Your task to perform on an android device: empty trash in the gmail app Image 0: 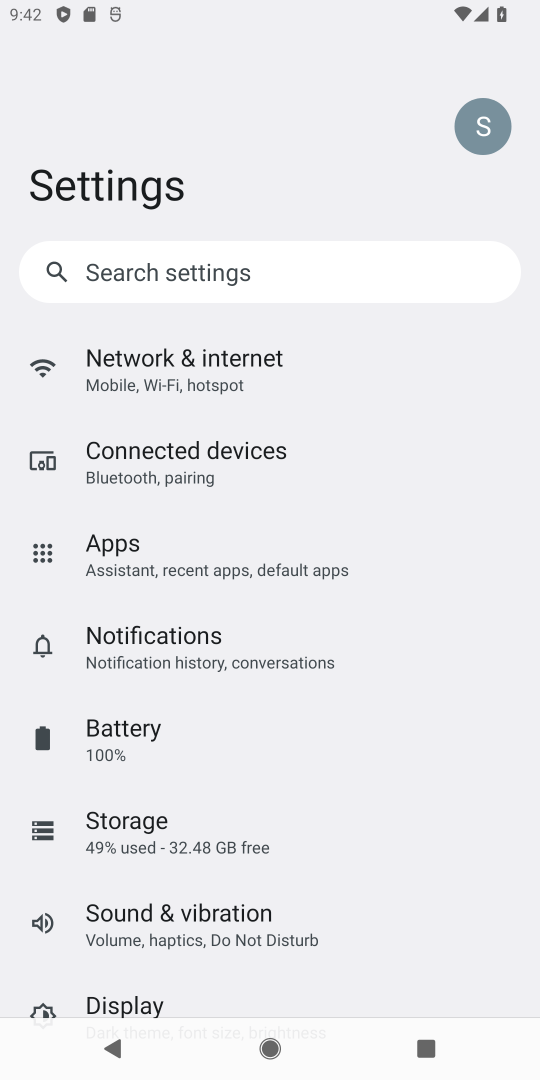
Step 0: press home button
Your task to perform on an android device: empty trash in the gmail app Image 1: 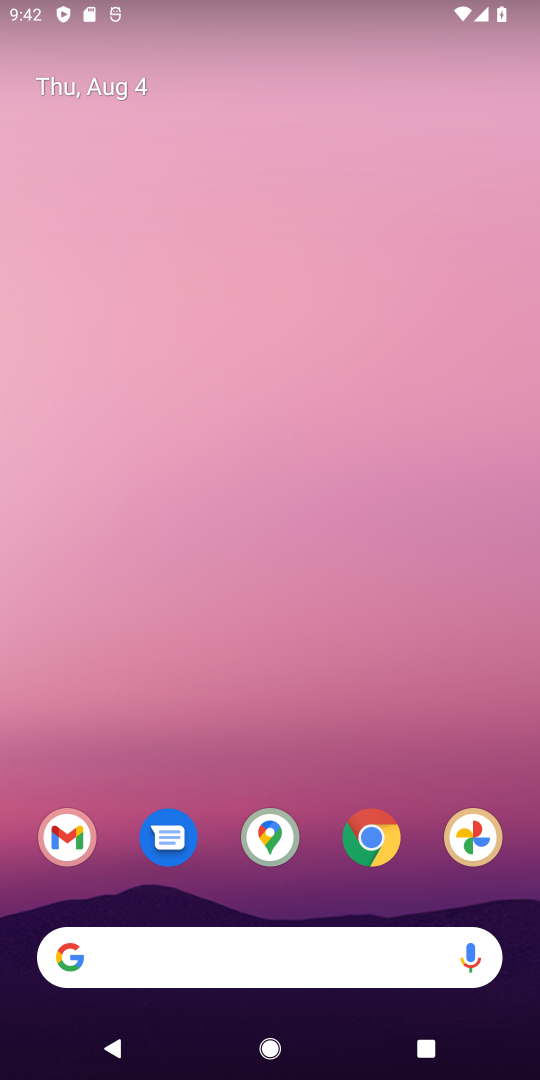
Step 1: drag from (366, 718) to (260, 3)
Your task to perform on an android device: empty trash in the gmail app Image 2: 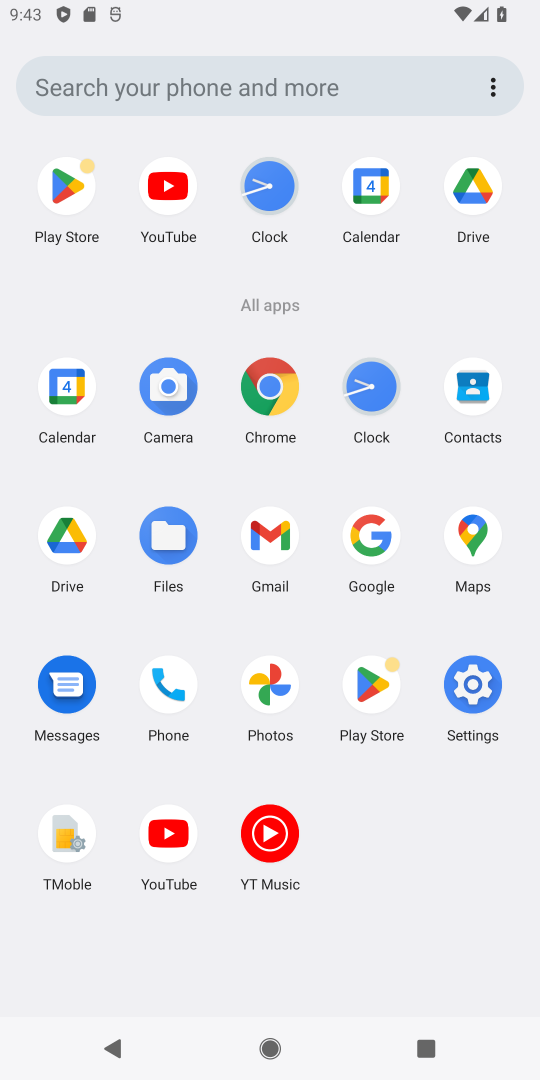
Step 2: click (265, 522)
Your task to perform on an android device: empty trash in the gmail app Image 3: 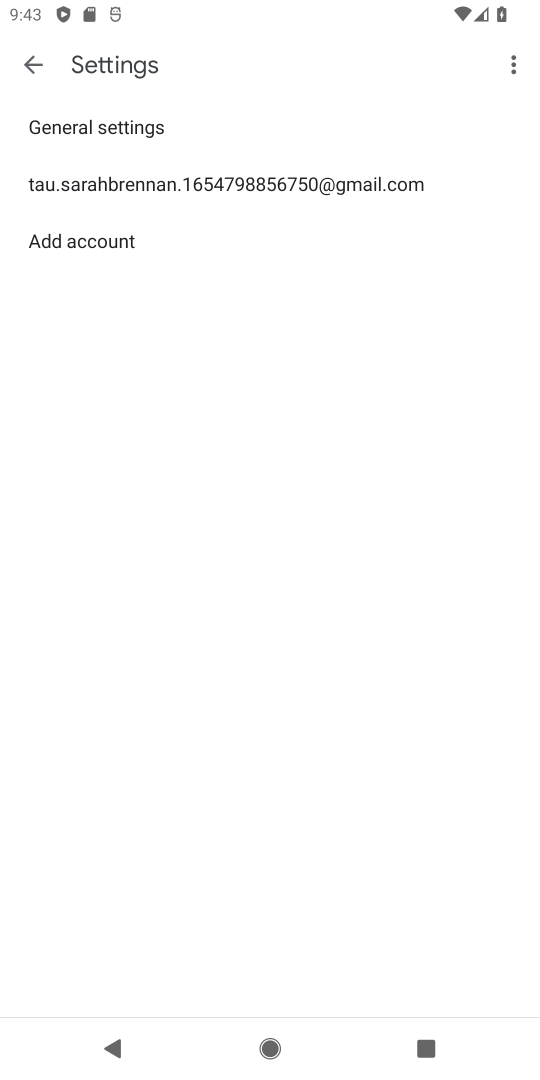
Step 3: click (293, 195)
Your task to perform on an android device: empty trash in the gmail app Image 4: 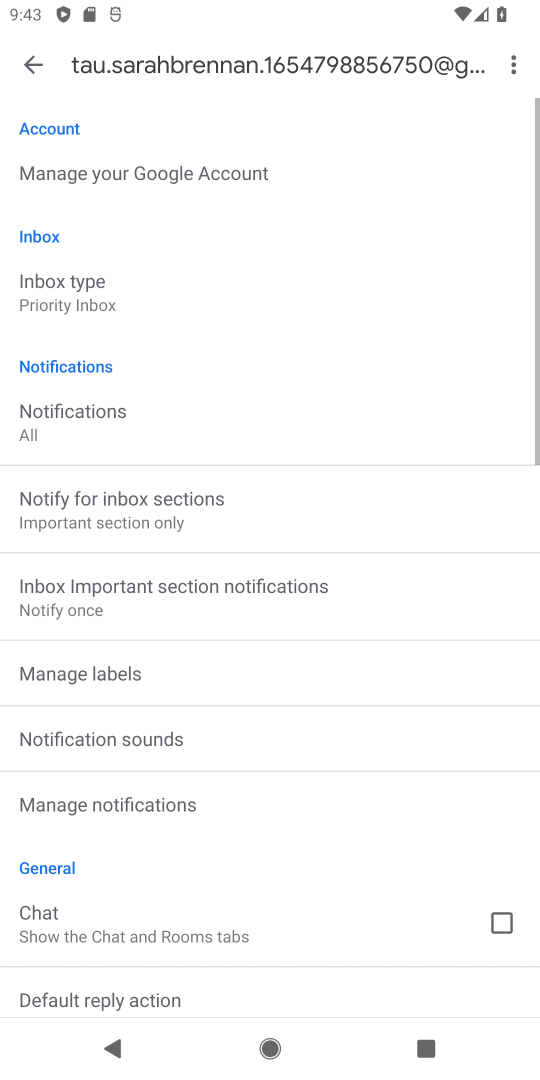
Step 4: press back button
Your task to perform on an android device: empty trash in the gmail app Image 5: 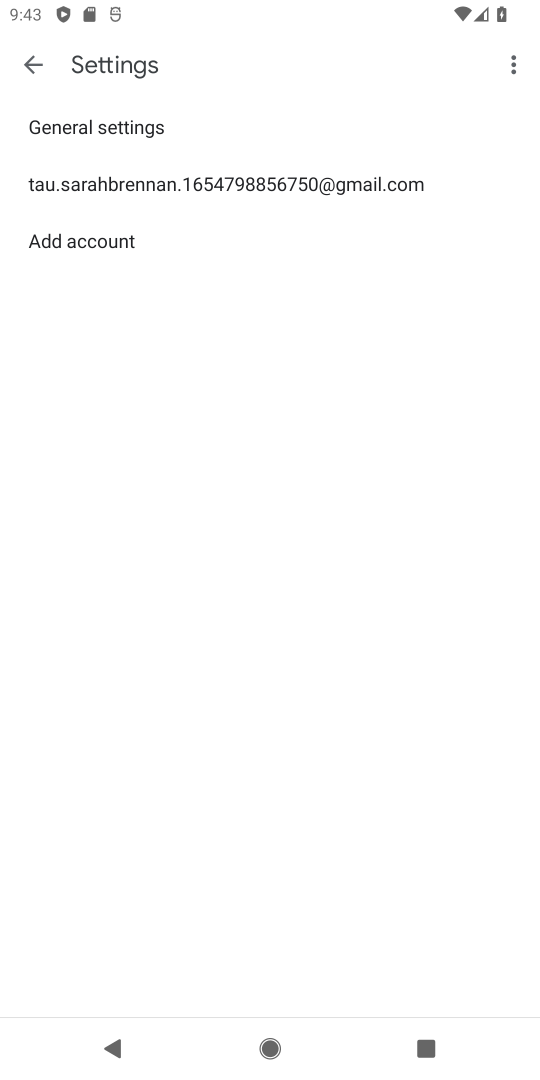
Step 5: press back button
Your task to perform on an android device: empty trash in the gmail app Image 6: 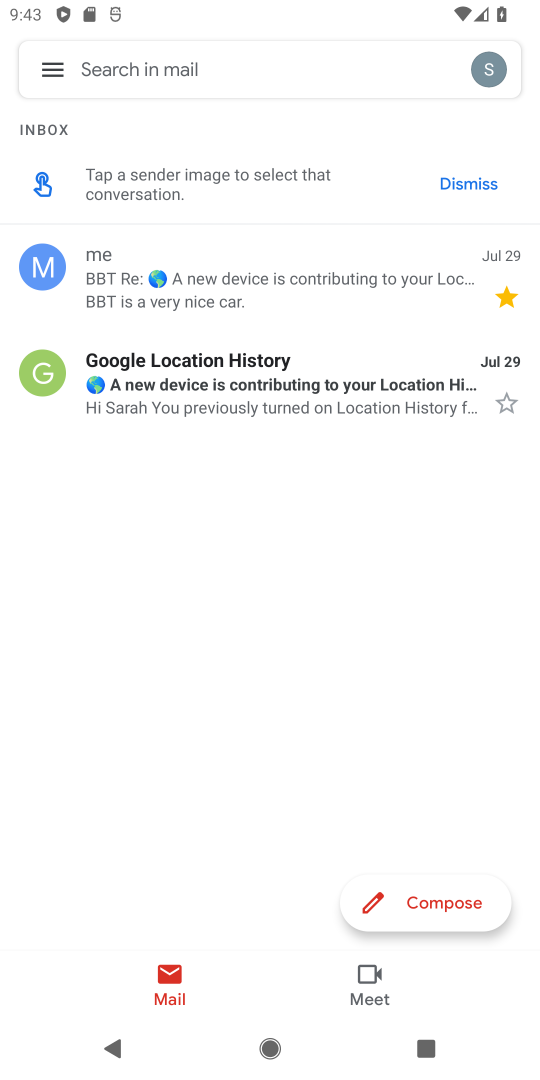
Step 6: click (37, 64)
Your task to perform on an android device: empty trash in the gmail app Image 7: 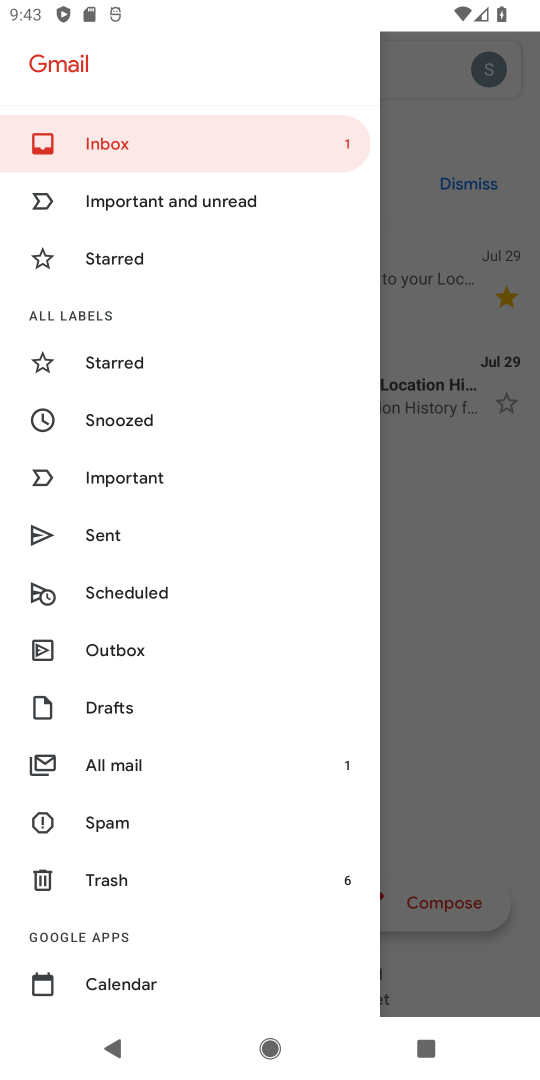
Step 7: click (97, 883)
Your task to perform on an android device: empty trash in the gmail app Image 8: 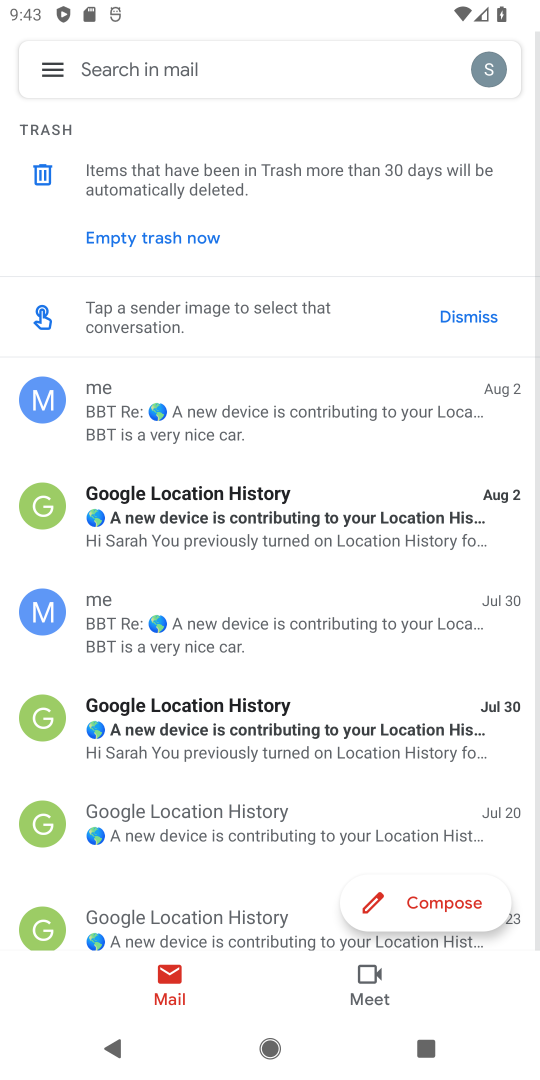
Step 8: click (164, 238)
Your task to perform on an android device: empty trash in the gmail app Image 9: 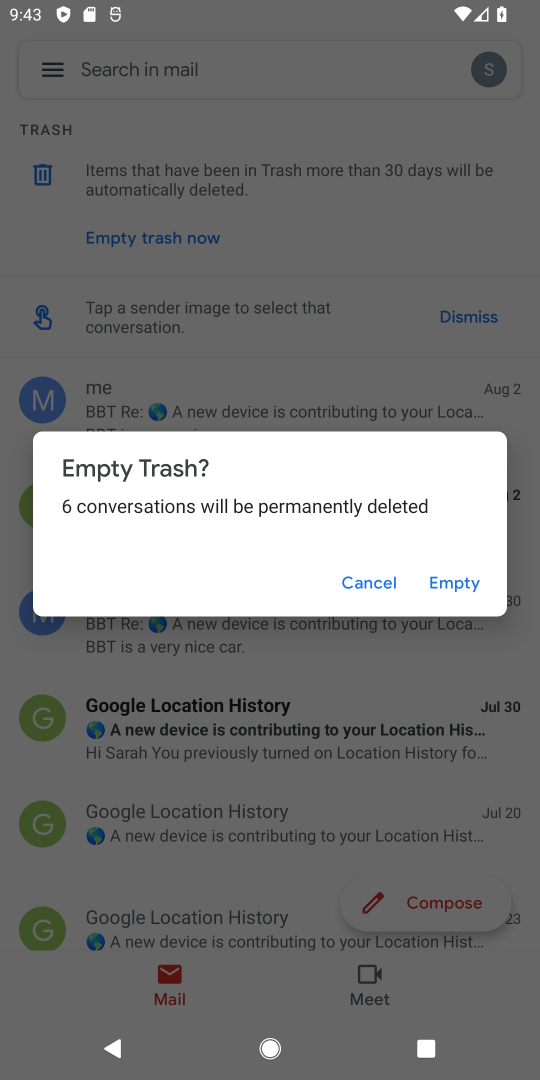
Step 9: click (444, 584)
Your task to perform on an android device: empty trash in the gmail app Image 10: 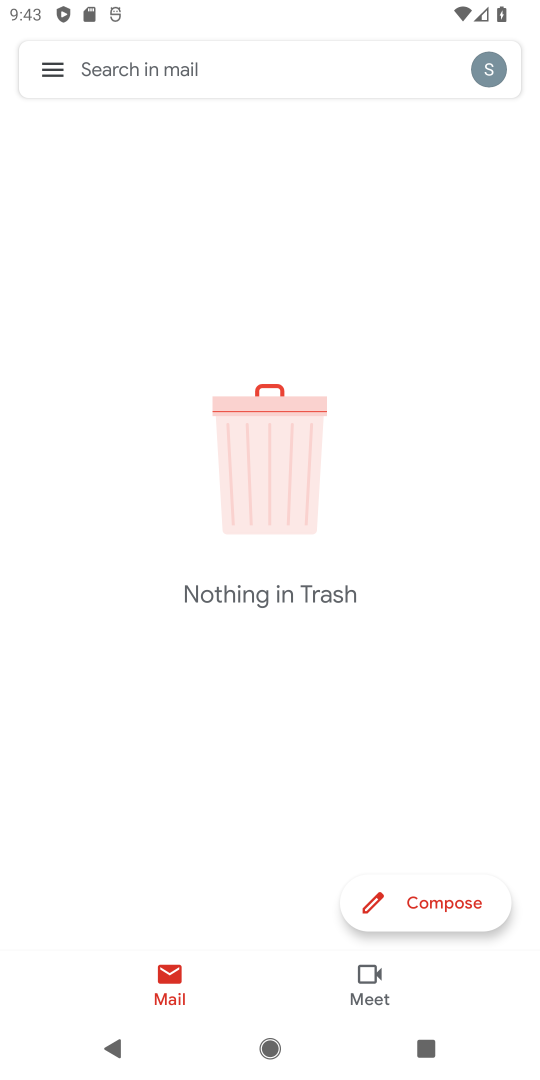
Step 10: task complete